Your task to perform on an android device: open a bookmark in the chrome app Image 0: 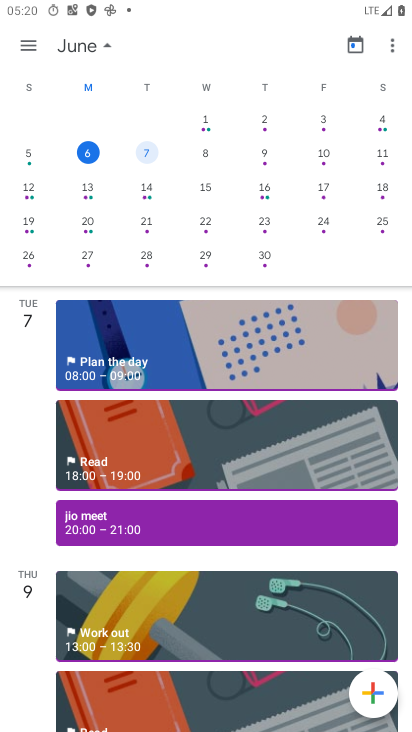
Step 0: press home button
Your task to perform on an android device: open a bookmark in the chrome app Image 1: 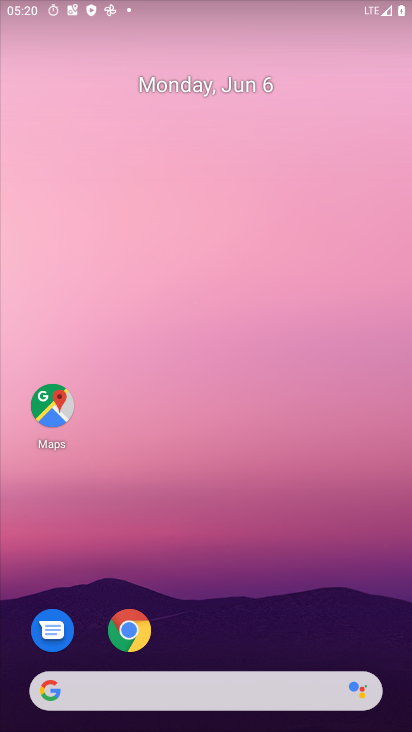
Step 1: drag from (255, 618) to (293, 77)
Your task to perform on an android device: open a bookmark in the chrome app Image 2: 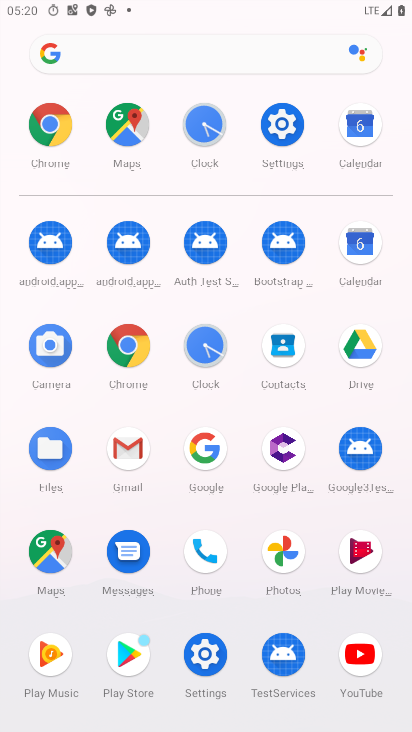
Step 2: click (130, 348)
Your task to perform on an android device: open a bookmark in the chrome app Image 3: 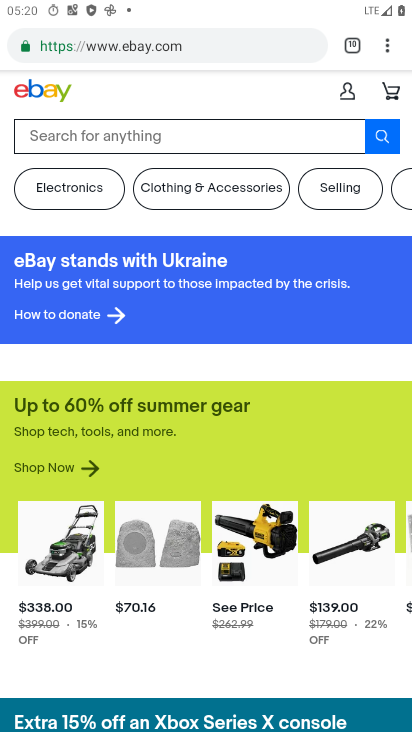
Step 3: task complete